Your task to perform on an android device: empty trash in the gmail app Image 0: 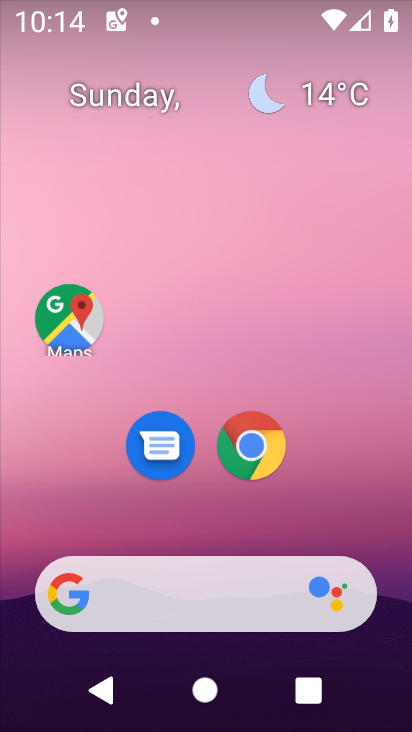
Step 0: drag from (211, 499) to (249, 2)
Your task to perform on an android device: empty trash in the gmail app Image 1: 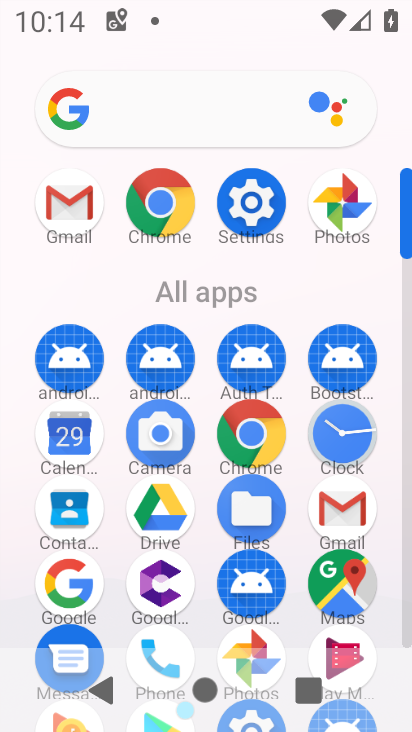
Step 1: click (350, 502)
Your task to perform on an android device: empty trash in the gmail app Image 2: 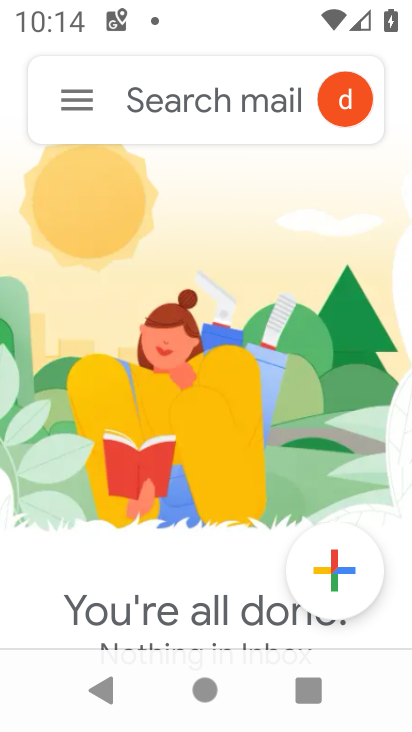
Step 2: click (54, 104)
Your task to perform on an android device: empty trash in the gmail app Image 3: 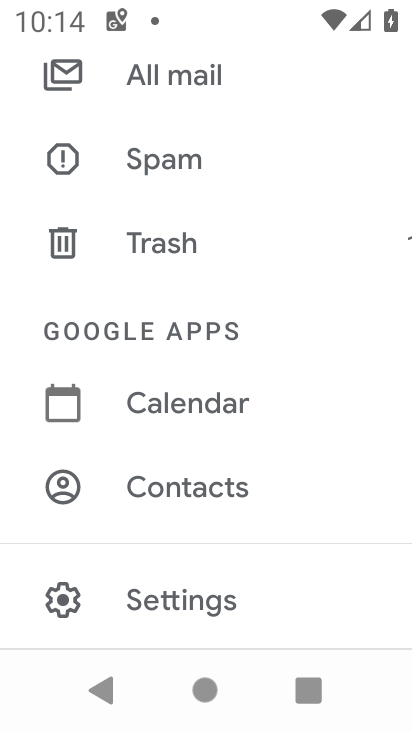
Step 3: click (199, 241)
Your task to perform on an android device: empty trash in the gmail app Image 4: 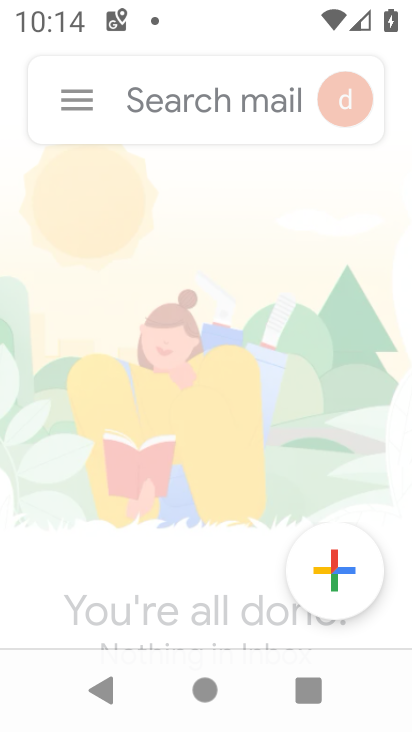
Step 4: task complete